Your task to perform on an android device: Show me productivity apps on the Play Store Image 0: 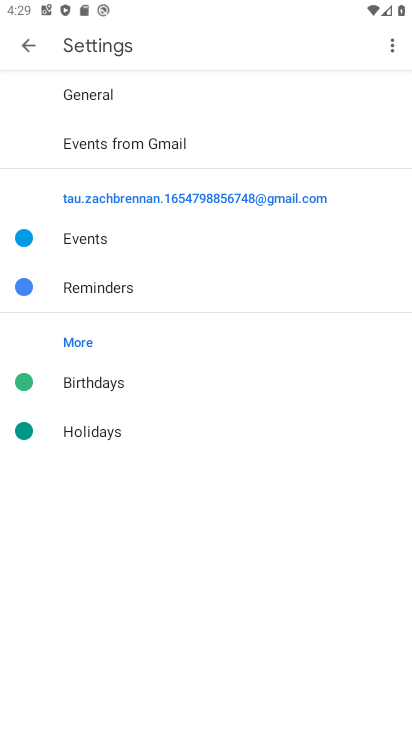
Step 0: press home button
Your task to perform on an android device: Show me productivity apps on the Play Store Image 1: 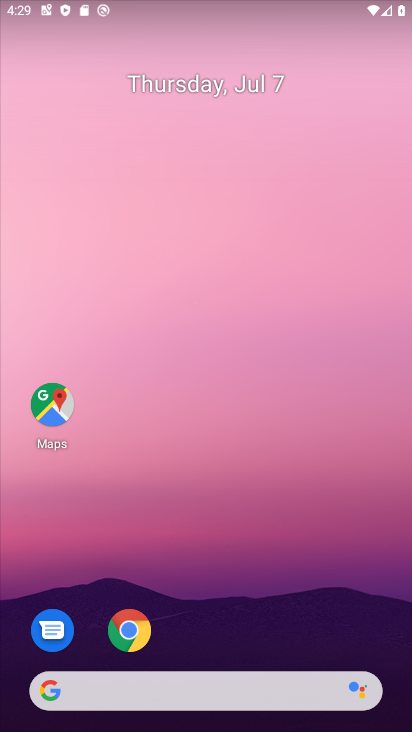
Step 1: drag from (181, 653) to (330, 24)
Your task to perform on an android device: Show me productivity apps on the Play Store Image 2: 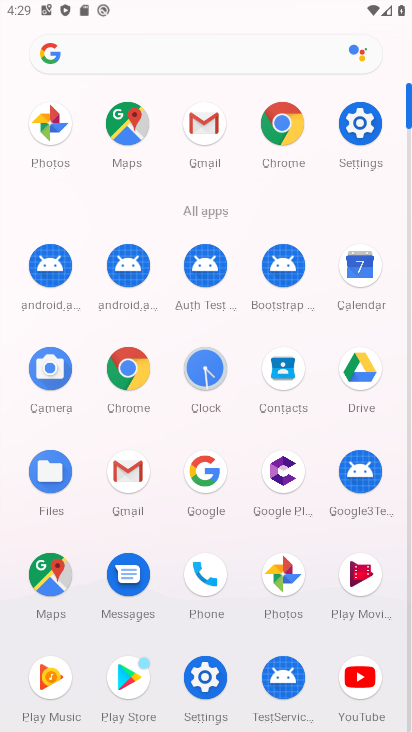
Step 2: click (117, 681)
Your task to perform on an android device: Show me productivity apps on the Play Store Image 3: 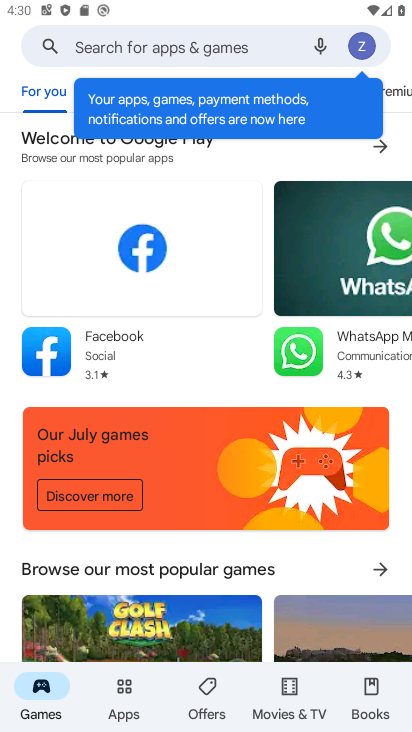
Step 3: click (112, 687)
Your task to perform on an android device: Show me productivity apps on the Play Store Image 4: 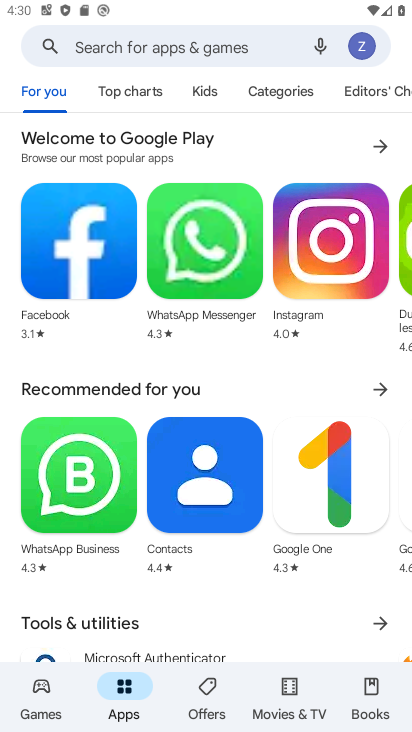
Step 4: click (273, 95)
Your task to perform on an android device: Show me productivity apps on the Play Store Image 5: 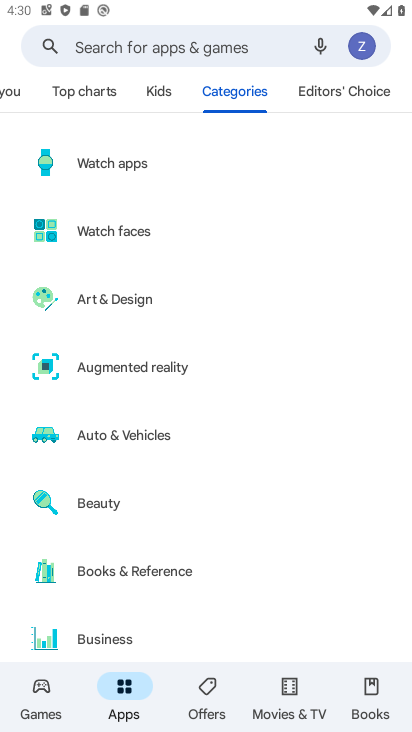
Step 5: drag from (147, 625) to (203, 149)
Your task to perform on an android device: Show me productivity apps on the Play Store Image 6: 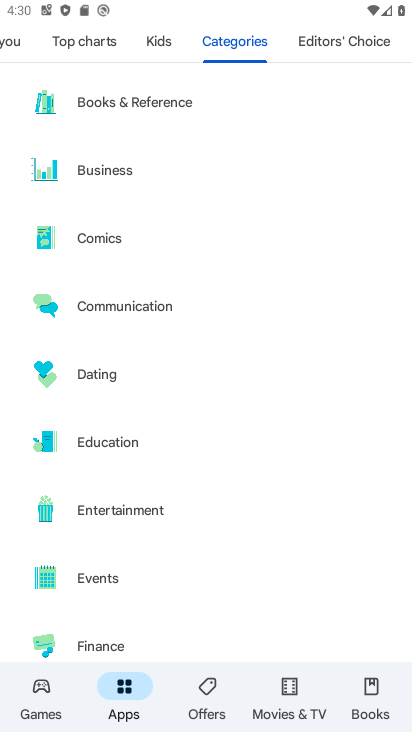
Step 6: drag from (136, 564) to (138, 126)
Your task to perform on an android device: Show me productivity apps on the Play Store Image 7: 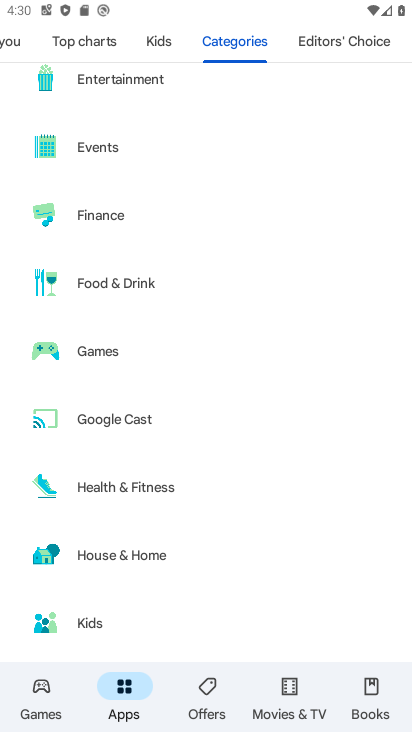
Step 7: drag from (154, 658) to (242, 162)
Your task to perform on an android device: Show me productivity apps on the Play Store Image 8: 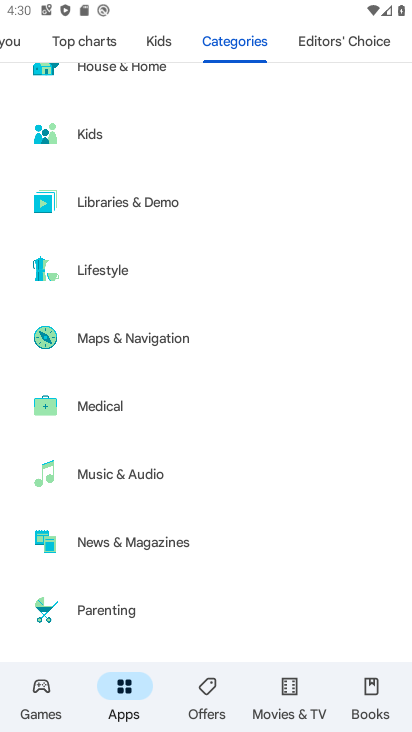
Step 8: drag from (102, 586) to (130, 245)
Your task to perform on an android device: Show me productivity apps on the Play Store Image 9: 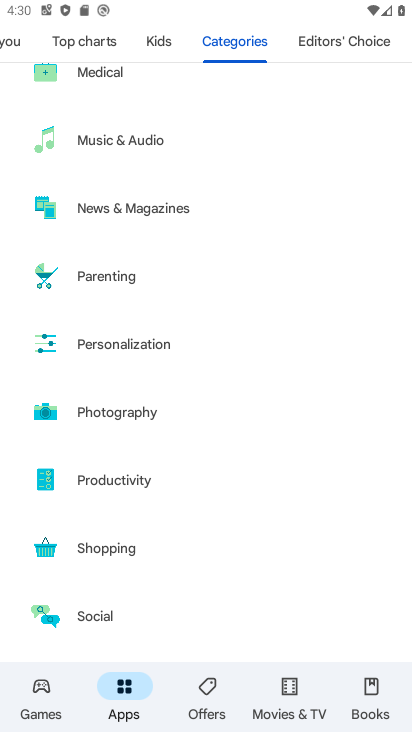
Step 9: click (105, 484)
Your task to perform on an android device: Show me productivity apps on the Play Store Image 10: 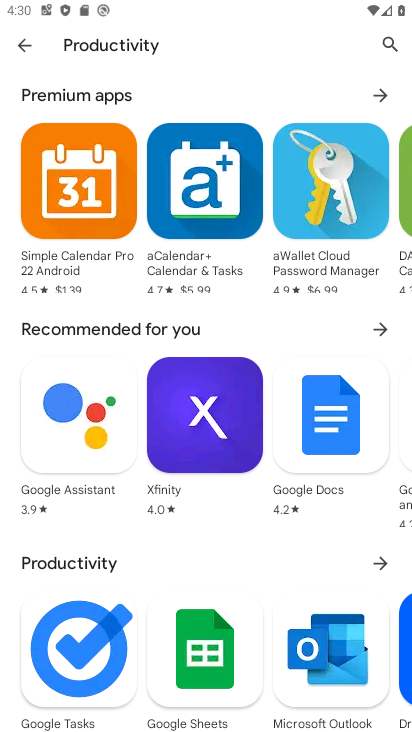
Step 10: task complete